Your task to perform on an android device: change notifications settings Image 0: 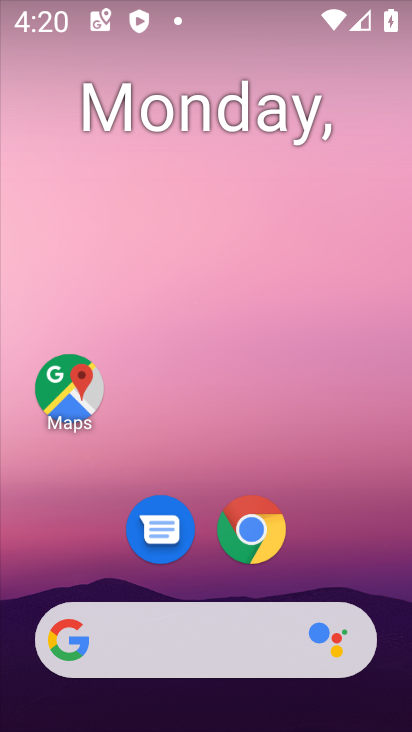
Step 0: drag from (228, 707) to (236, 148)
Your task to perform on an android device: change notifications settings Image 1: 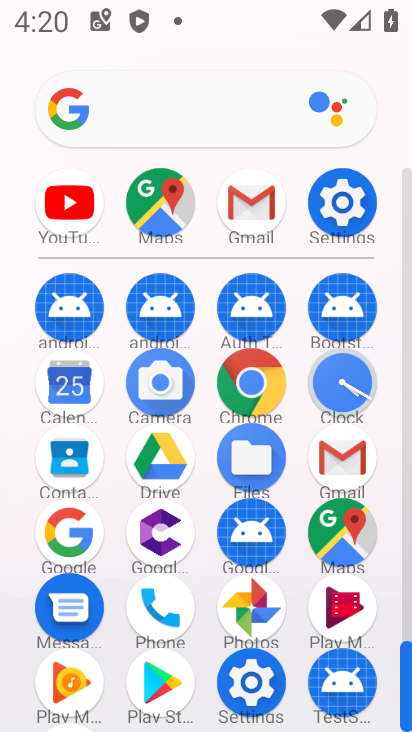
Step 1: click (345, 208)
Your task to perform on an android device: change notifications settings Image 2: 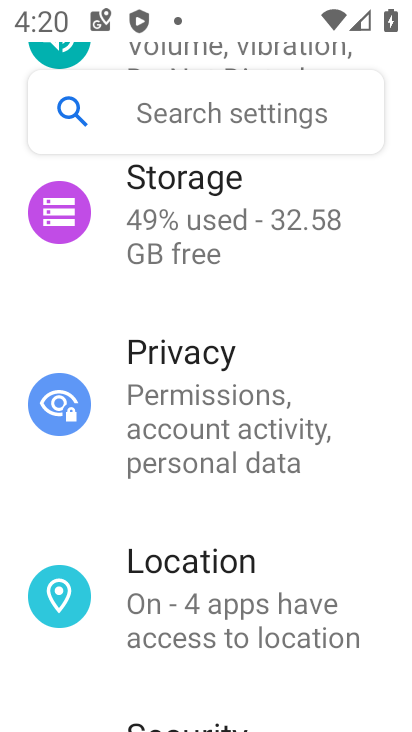
Step 2: drag from (245, 333) to (220, 677)
Your task to perform on an android device: change notifications settings Image 3: 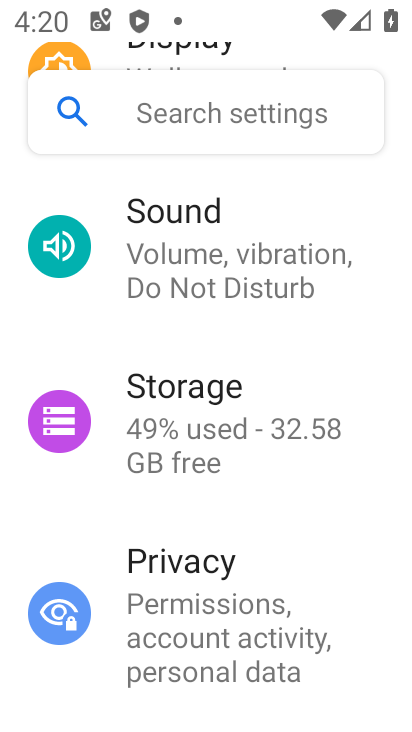
Step 3: drag from (235, 180) to (219, 607)
Your task to perform on an android device: change notifications settings Image 4: 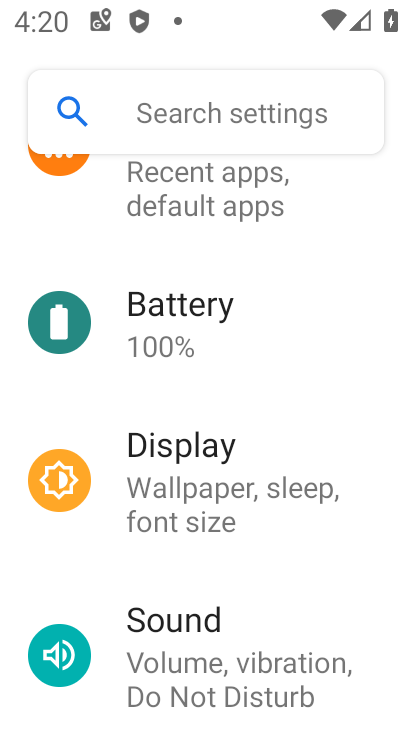
Step 4: drag from (203, 275) to (202, 593)
Your task to perform on an android device: change notifications settings Image 5: 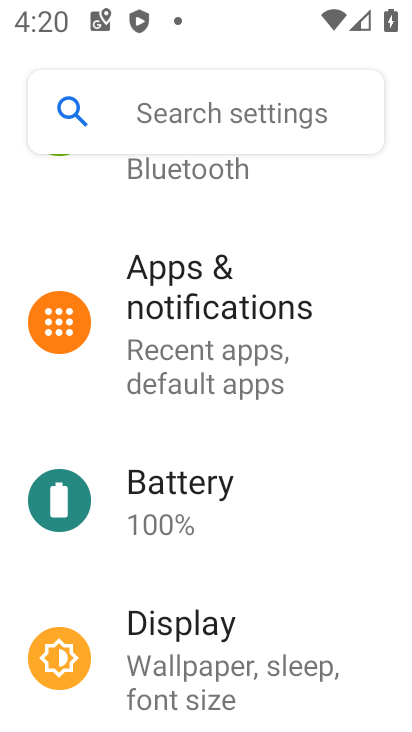
Step 5: click (170, 353)
Your task to perform on an android device: change notifications settings Image 6: 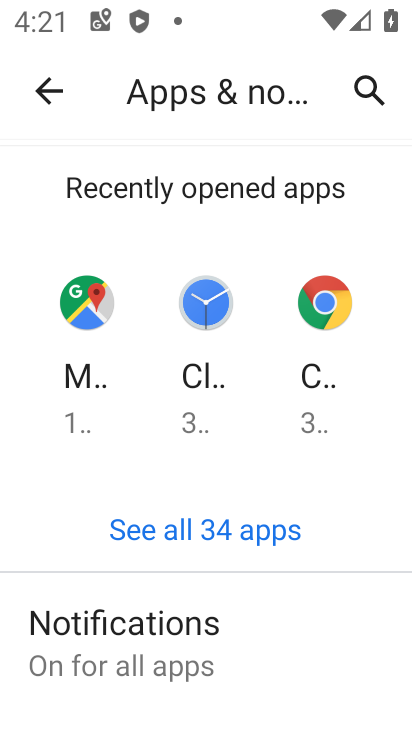
Step 6: drag from (246, 674) to (258, 408)
Your task to perform on an android device: change notifications settings Image 7: 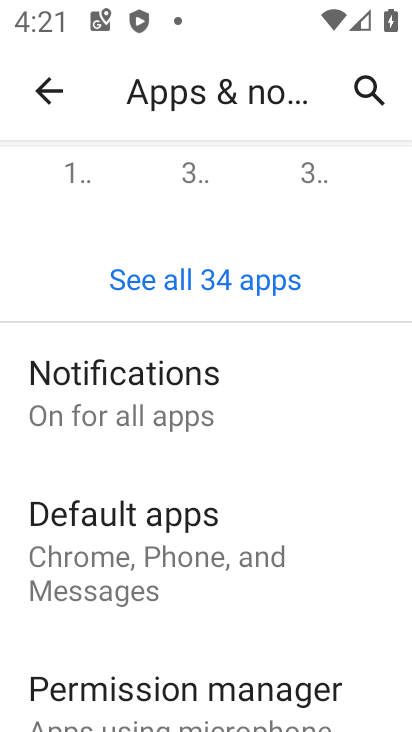
Step 7: click (160, 406)
Your task to perform on an android device: change notifications settings Image 8: 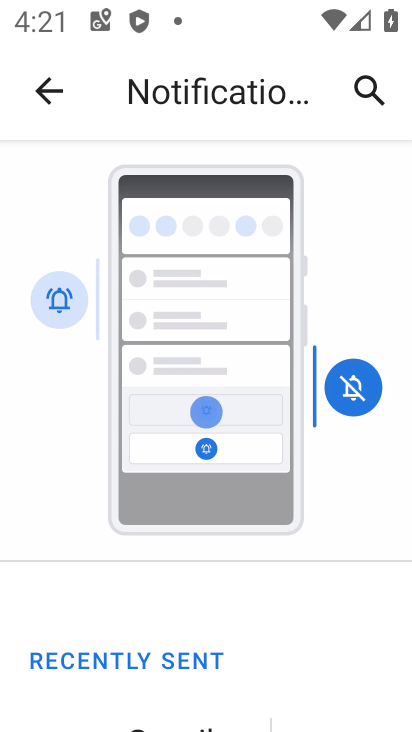
Step 8: drag from (230, 700) to (236, 207)
Your task to perform on an android device: change notifications settings Image 9: 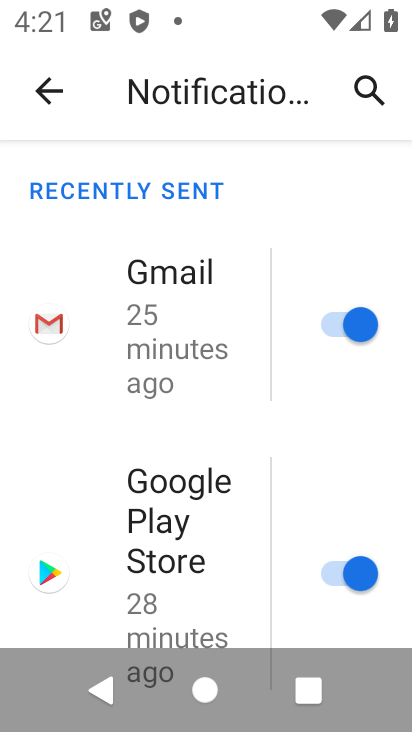
Step 9: drag from (229, 619) to (231, 322)
Your task to perform on an android device: change notifications settings Image 10: 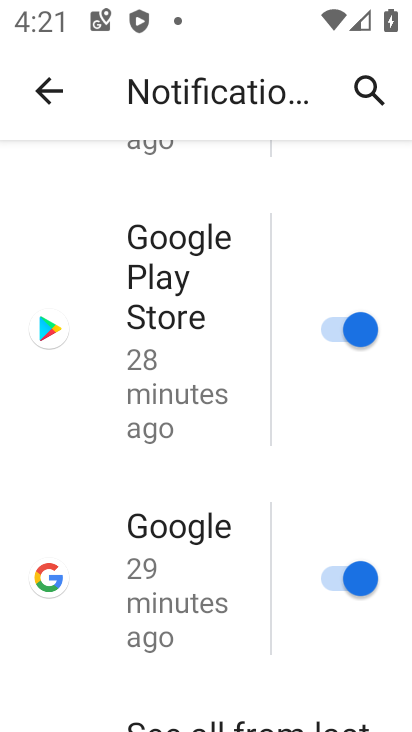
Step 10: drag from (216, 690) to (238, 472)
Your task to perform on an android device: change notifications settings Image 11: 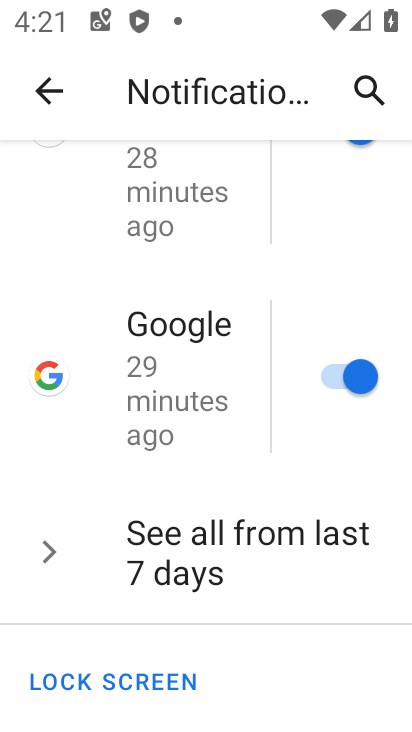
Step 11: drag from (233, 687) to (261, 293)
Your task to perform on an android device: change notifications settings Image 12: 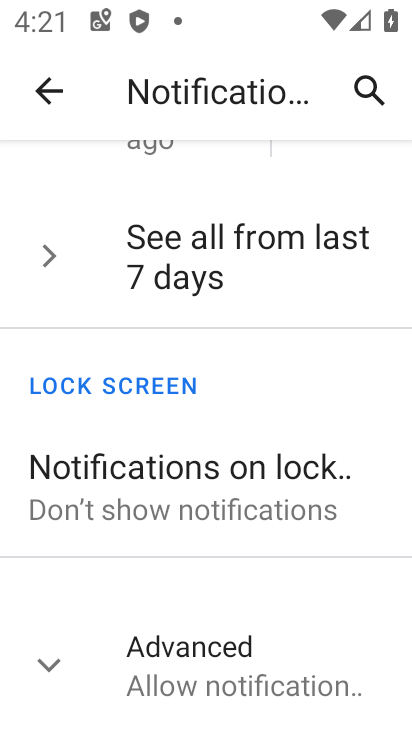
Step 12: click (201, 655)
Your task to perform on an android device: change notifications settings Image 13: 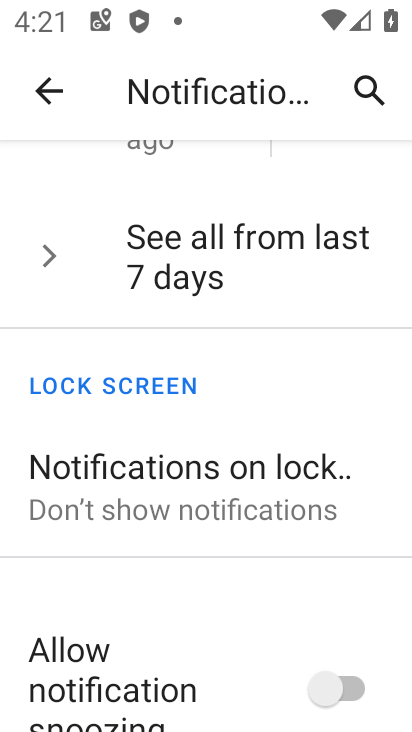
Step 13: click (352, 681)
Your task to perform on an android device: change notifications settings Image 14: 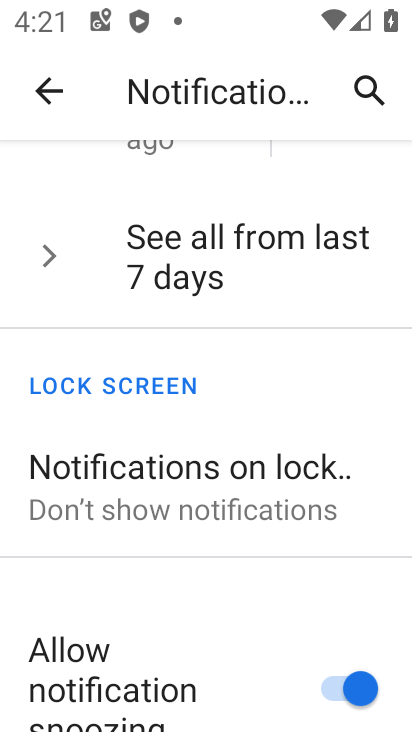
Step 14: task complete